Your task to perform on an android device: Go to Reddit.com Image 0: 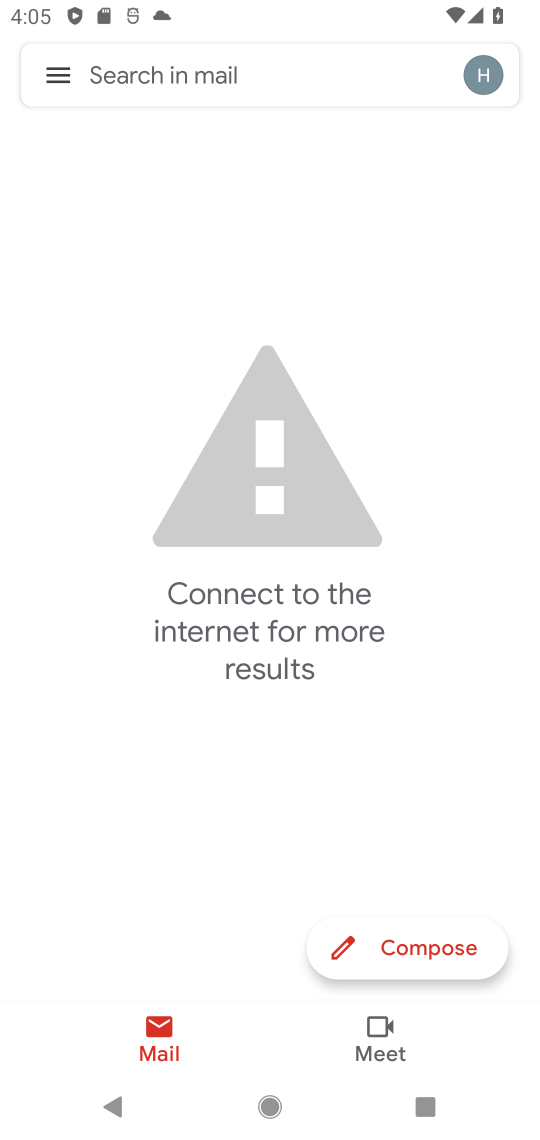
Step 0: press home button
Your task to perform on an android device: Go to Reddit.com Image 1: 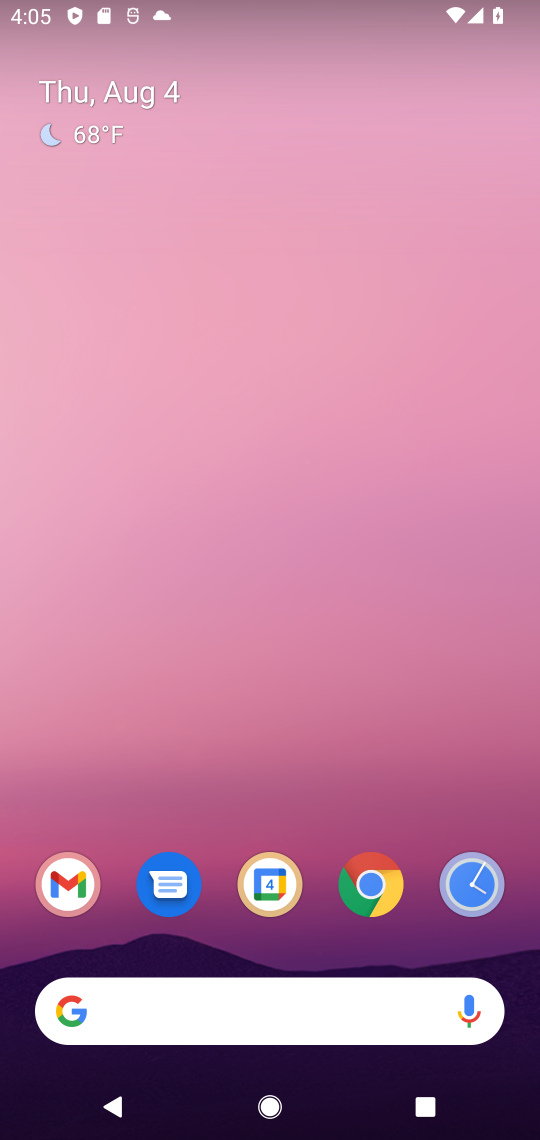
Step 1: drag from (265, 928) to (330, 216)
Your task to perform on an android device: Go to Reddit.com Image 2: 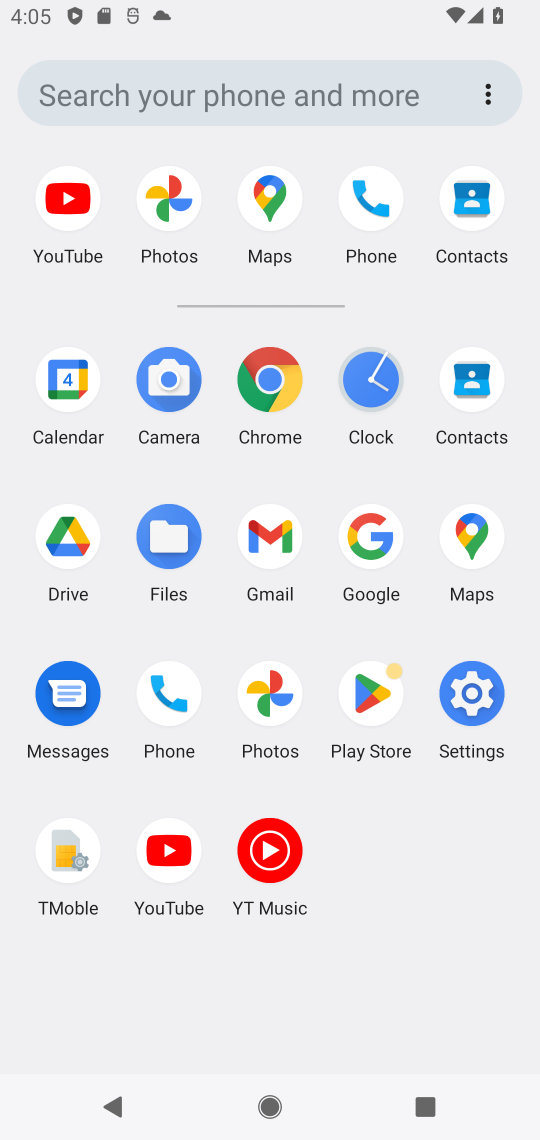
Step 2: click (256, 366)
Your task to perform on an android device: Go to Reddit.com Image 3: 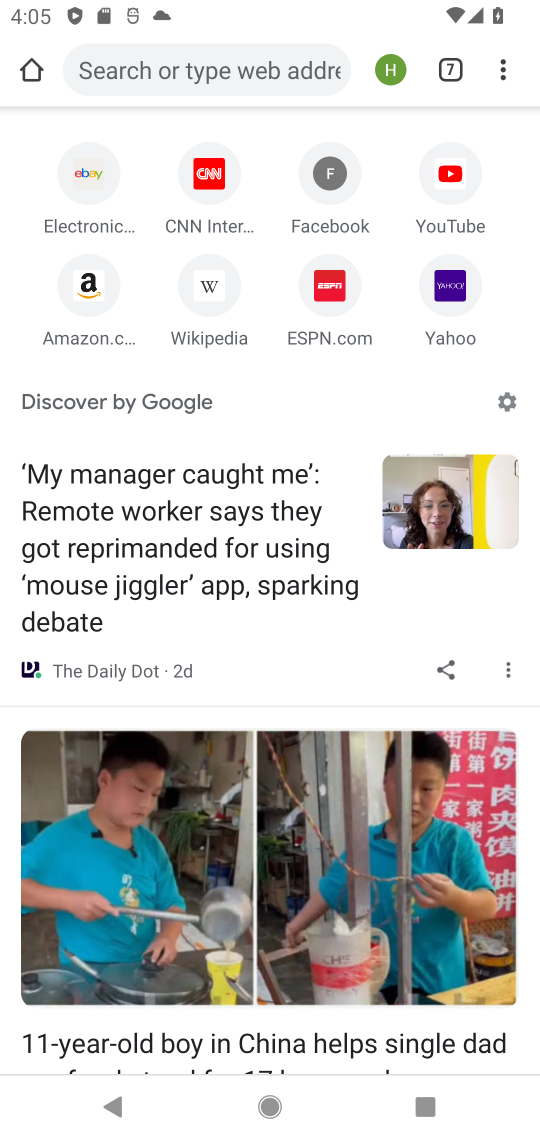
Step 3: click (262, 60)
Your task to perform on an android device: Go to Reddit.com Image 4: 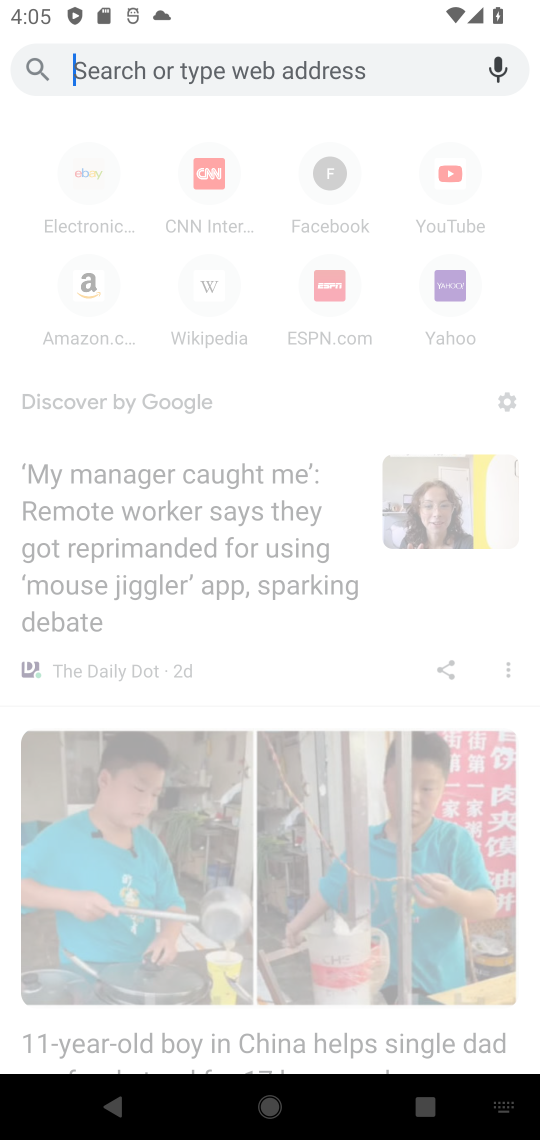
Step 4: type "Reddit.com "
Your task to perform on an android device: Go to Reddit.com Image 5: 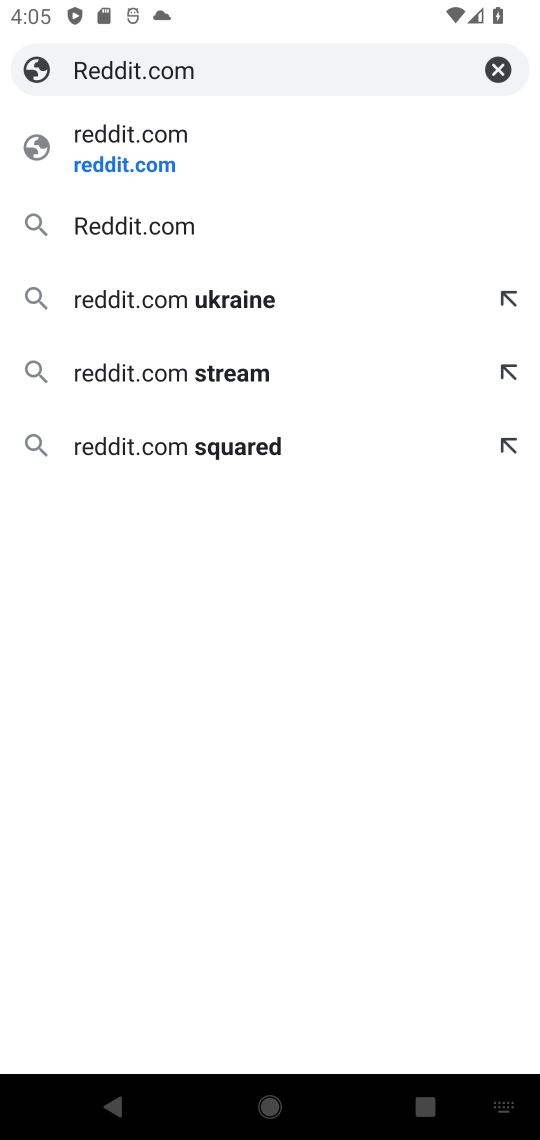
Step 5: click (124, 135)
Your task to perform on an android device: Go to Reddit.com Image 6: 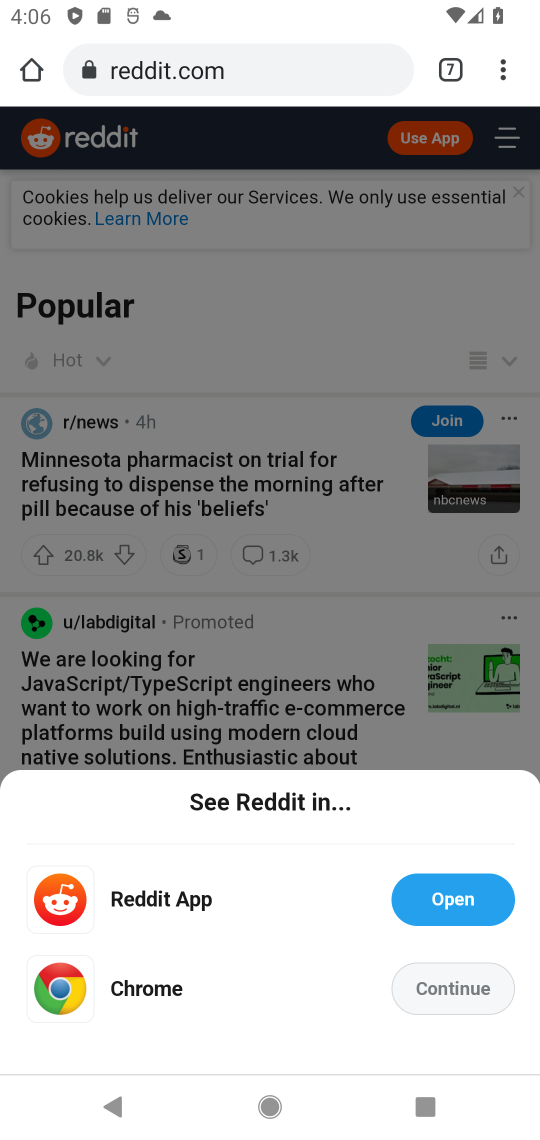
Step 6: task complete